Your task to perform on an android device: Go to battery settings Image 0: 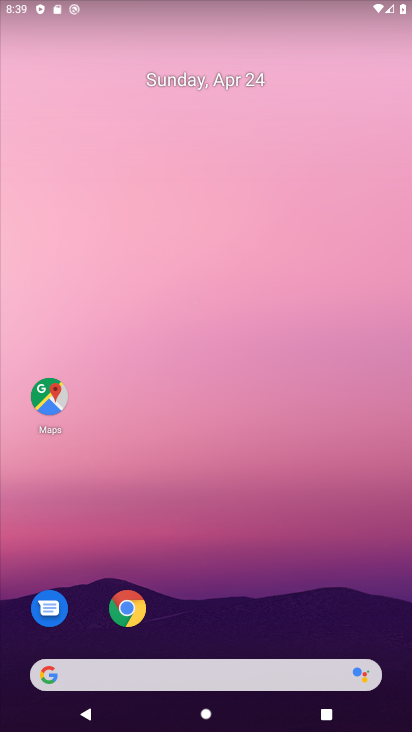
Step 0: drag from (226, 264) to (246, 133)
Your task to perform on an android device: Go to battery settings Image 1: 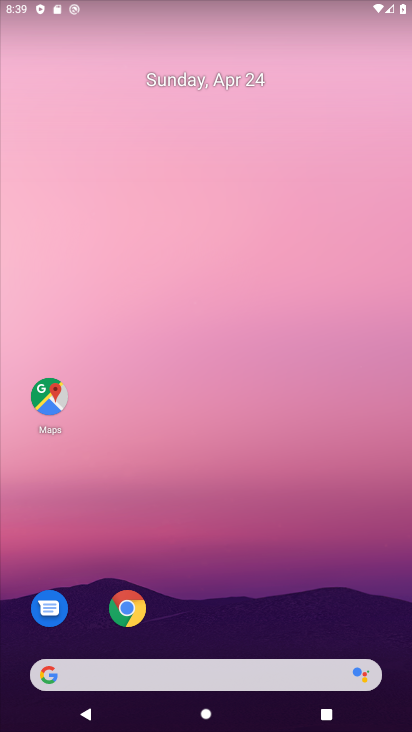
Step 1: drag from (234, 631) to (214, 143)
Your task to perform on an android device: Go to battery settings Image 2: 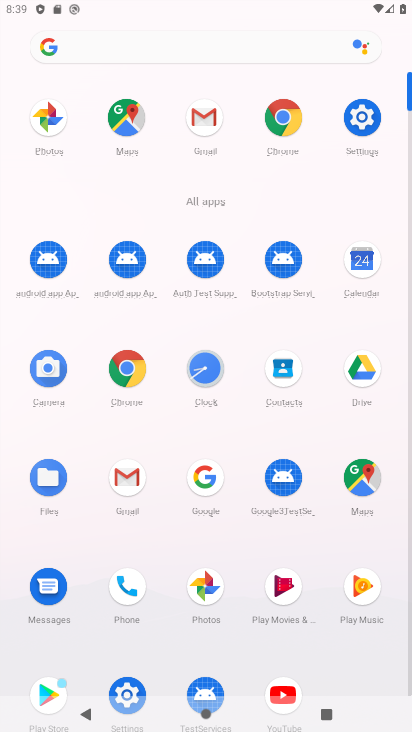
Step 2: click (366, 127)
Your task to perform on an android device: Go to battery settings Image 3: 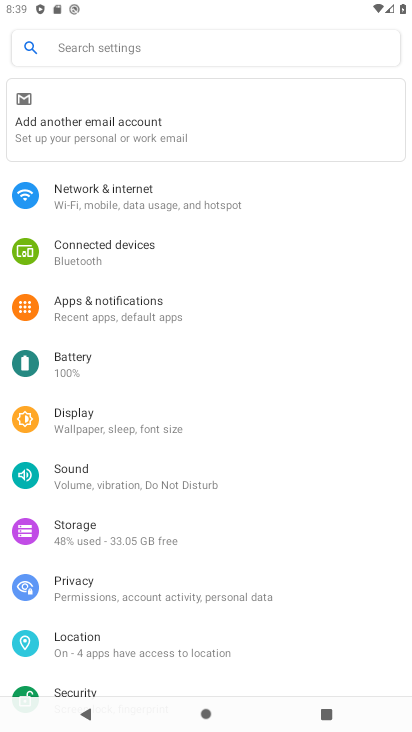
Step 3: drag from (121, 644) to (176, 245)
Your task to perform on an android device: Go to battery settings Image 4: 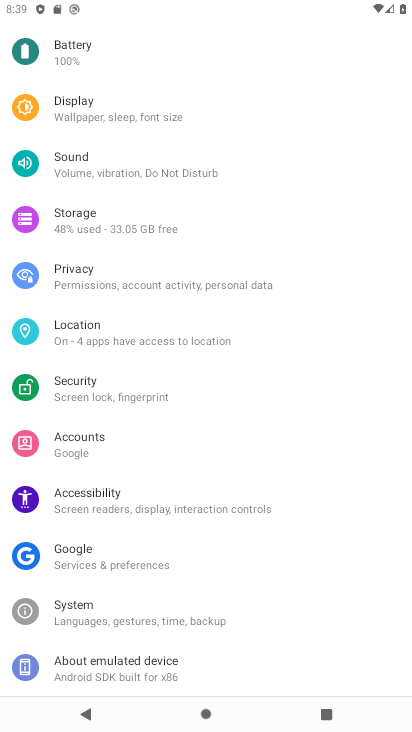
Step 4: click (98, 59)
Your task to perform on an android device: Go to battery settings Image 5: 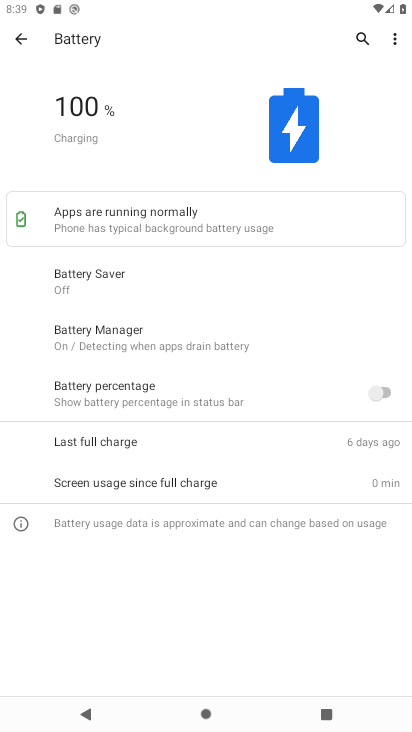
Step 5: task complete